Your task to perform on an android device: Go to Maps Image 0: 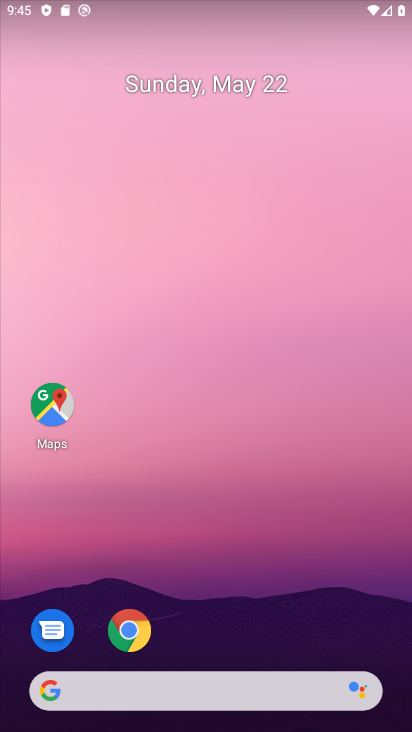
Step 0: click (43, 414)
Your task to perform on an android device: Go to Maps Image 1: 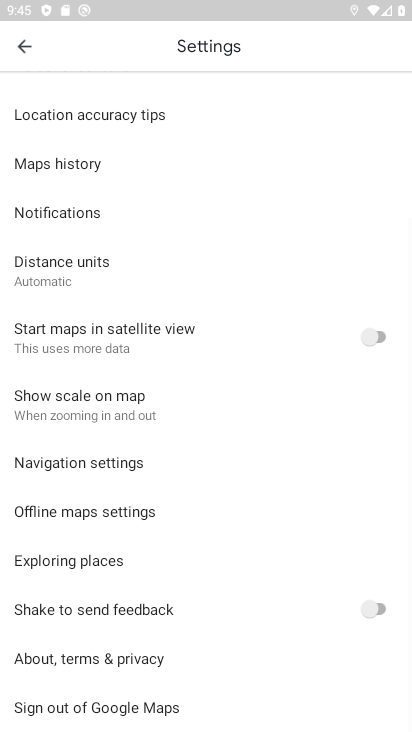
Step 1: click (24, 49)
Your task to perform on an android device: Go to Maps Image 2: 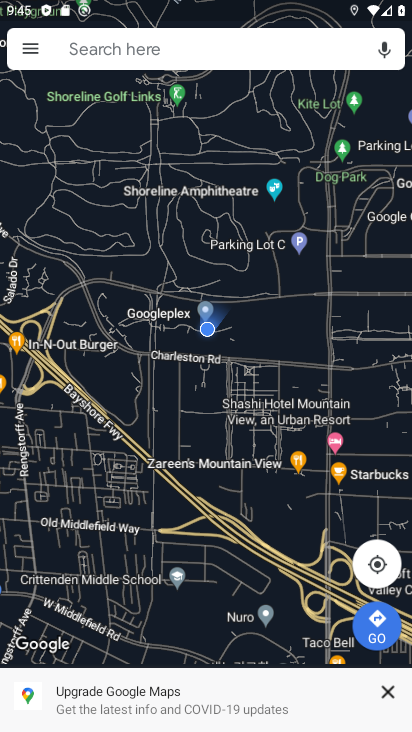
Step 2: task complete